Your task to perform on an android device: Open Youtube and go to "Your channel" Image 0: 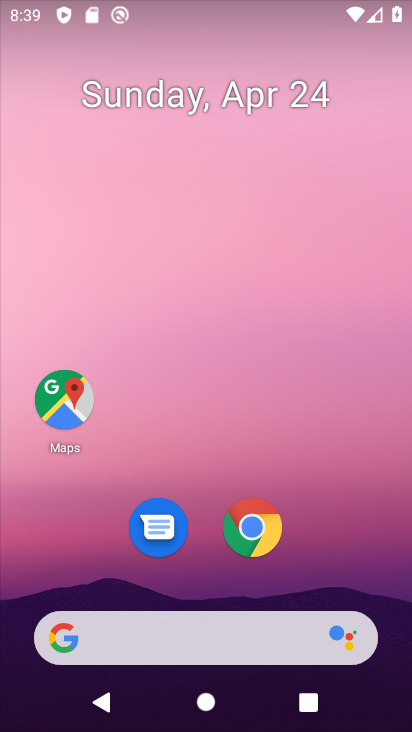
Step 0: drag from (384, 607) to (187, 43)
Your task to perform on an android device: Open Youtube and go to "Your channel" Image 1: 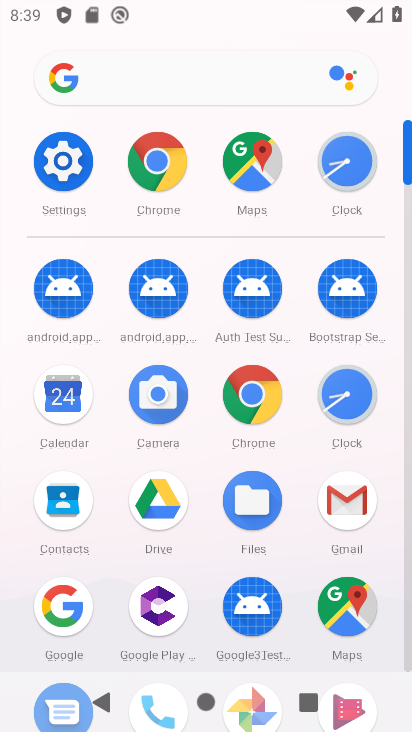
Step 1: click (407, 666)
Your task to perform on an android device: Open Youtube and go to "Your channel" Image 2: 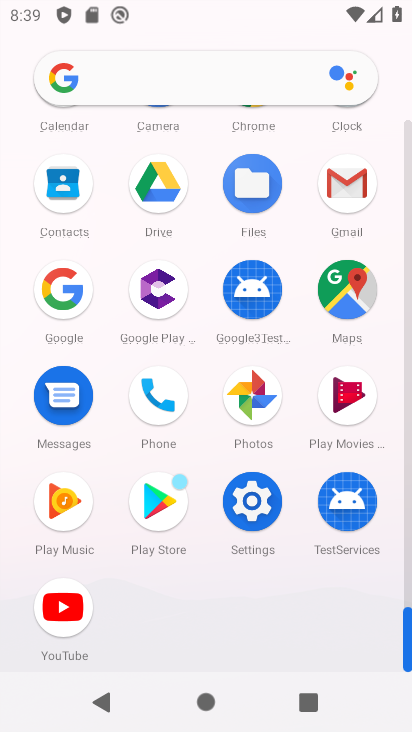
Step 2: click (39, 611)
Your task to perform on an android device: Open Youtube and go to "Your channel" Image 3: 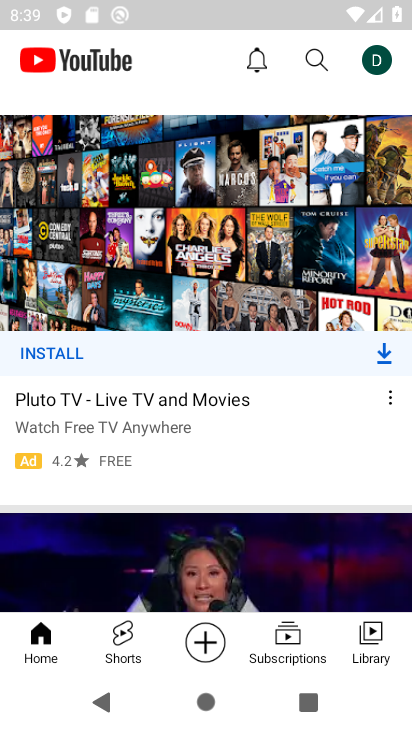
Step 3: click (373, 62)
Your task to perform on an android device: Open Youtube and go to "Your channel" Image 4: 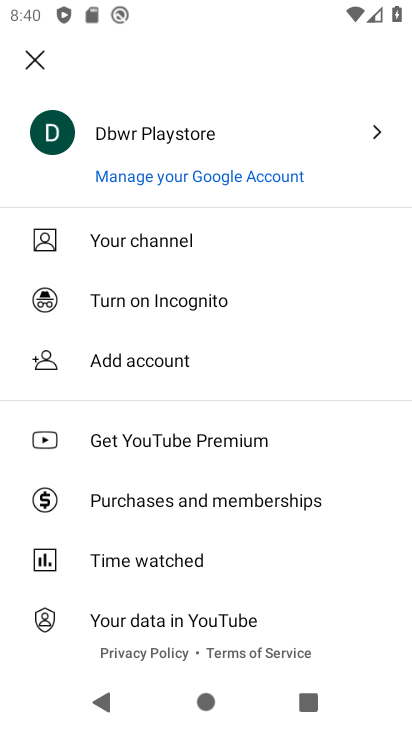
Step 4: click (141, 241)
Your task to perform on an android device: Open Youtube and go to "Your channel" Image 5: 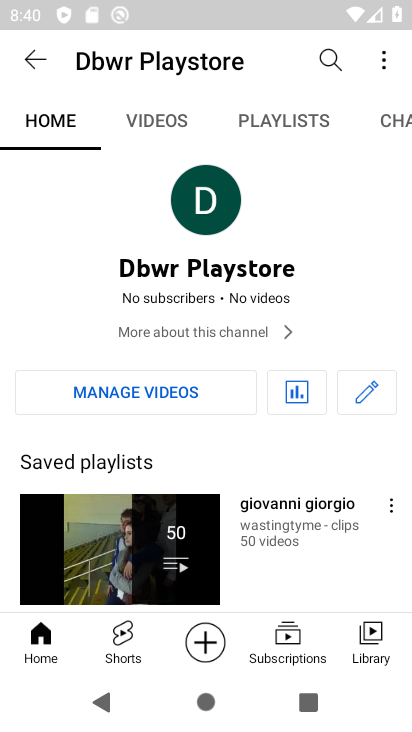
Step 5: task complete